Your task to perform on an android device: Open Youtube and go to "Your channel" Image 0: 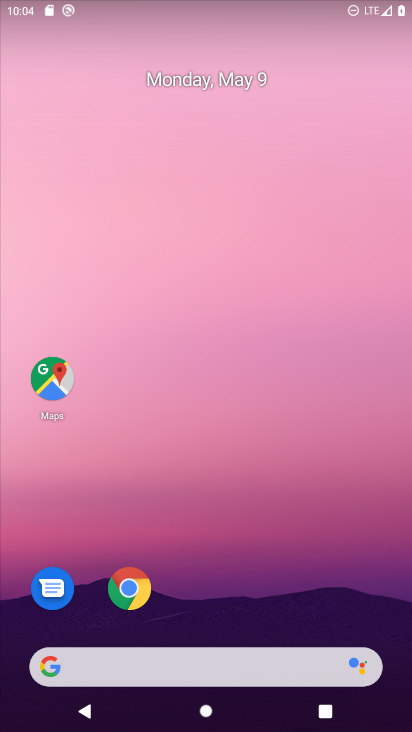
Step 0: drag from (361, 610) to (304, 91)
Your task to perform on an android device: Open Youtube and go to "Your channel" Image 1: 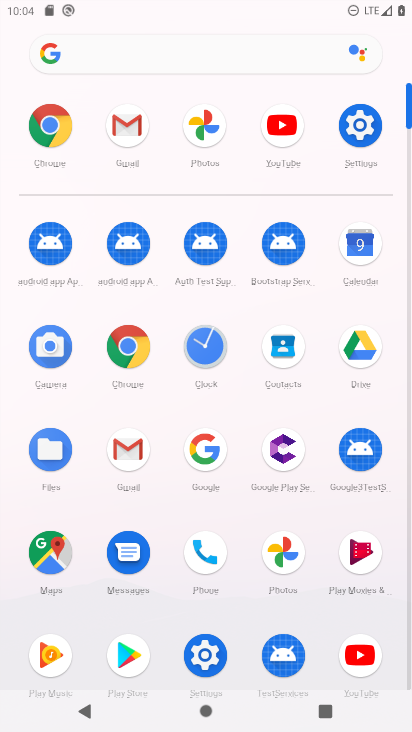
Step 1: click (384, 678)
Your task to perform on an android device: Open Youtube and go to "Your channel" Image 2: 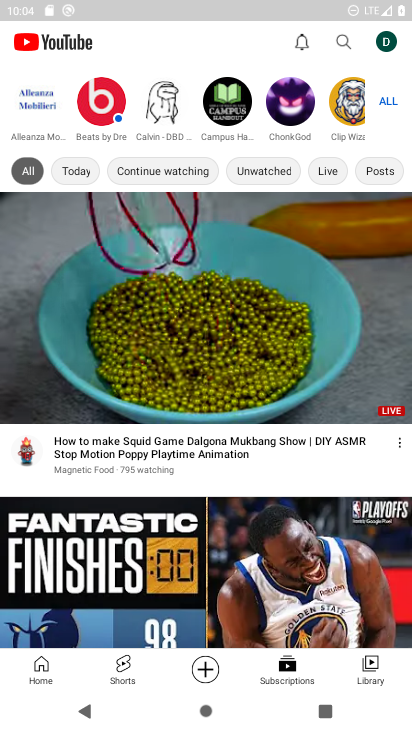
Step 2: click (28, 669)
Your task to perform on an android device: Open Youtube and go to "Your channel" Image 3: 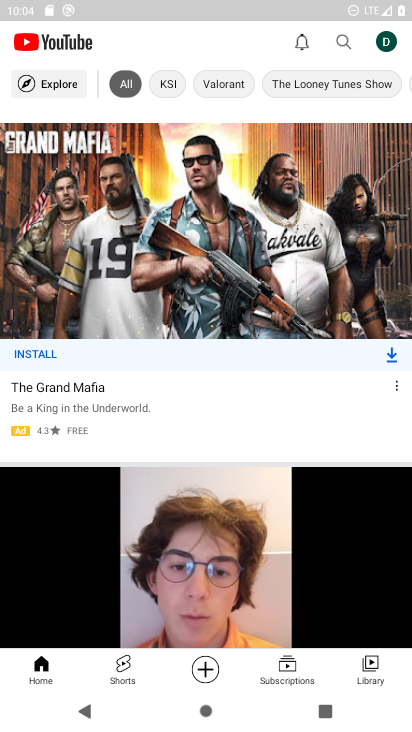
Step 3: task complete